Your task to perform on an android device: toggle notification dots Image 0: 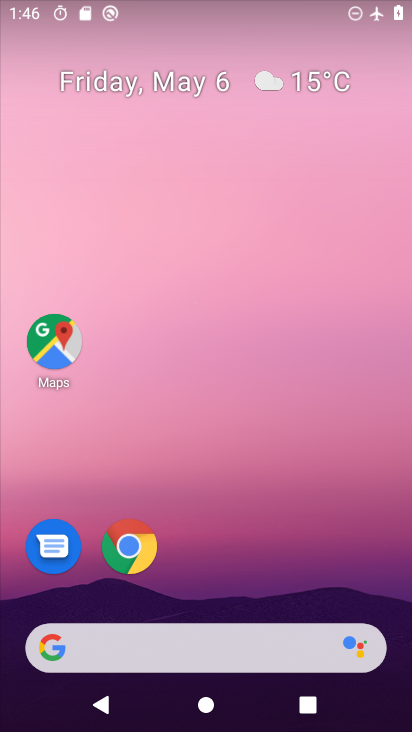
Step 0: drag from (281, 575) to (332, 157)
Your task to perform on an android device: toggle notification dots Image 1: 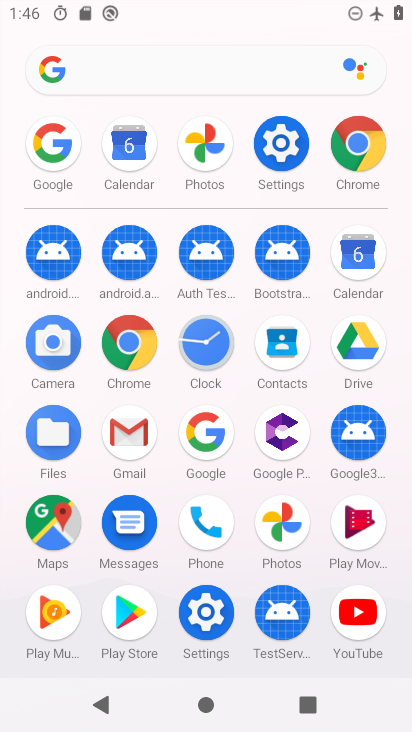
Step 1: click (282, 142)
Your task to perform on an android device: toggle notification dots Image 2: 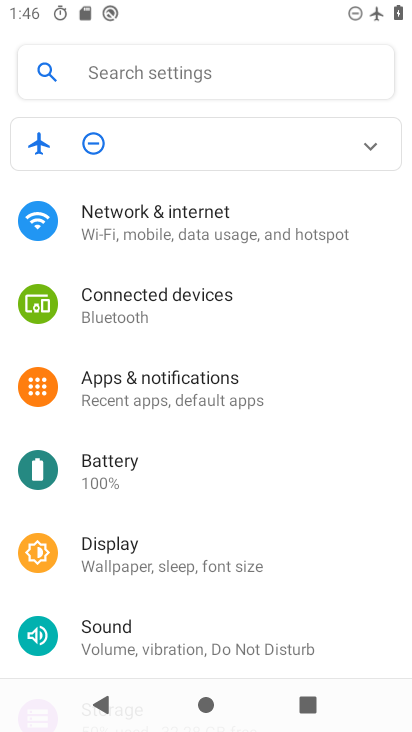
Step 2: click (195, 394)
Your task to perform on an android device: toggle notification dots Image 3: 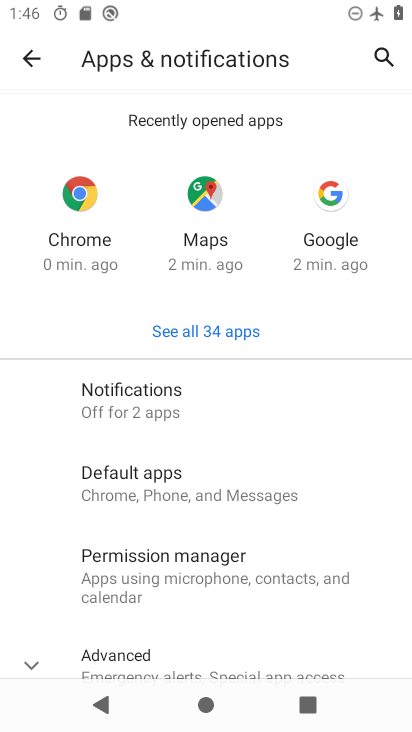
Step 3: click (166, 403)
Your task to perform on an android device: toggle notification dots Image 4: 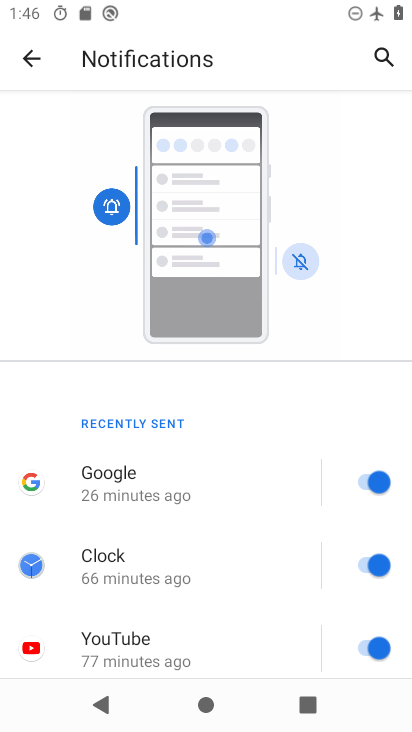
Step 4: drag from (234, 575) to (287, 223)
Your task to perform on an android device: toggle notification dots Image 5: 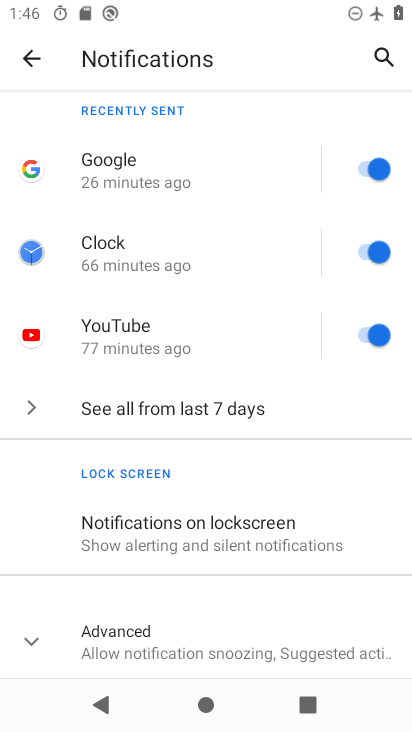
Step 5: click (219, 639)
Your task to perform on an android device: toggle notification dots Image 6: 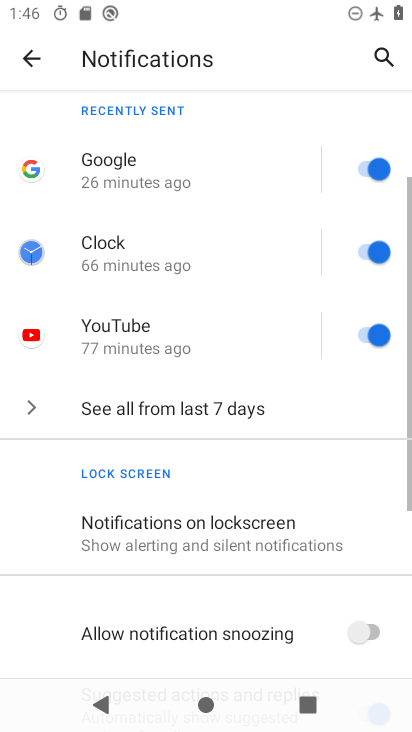
Step 6: drag from (287, 409) to (300, 275)
Your task to perform on an android device: toggle notification dots Image 7: 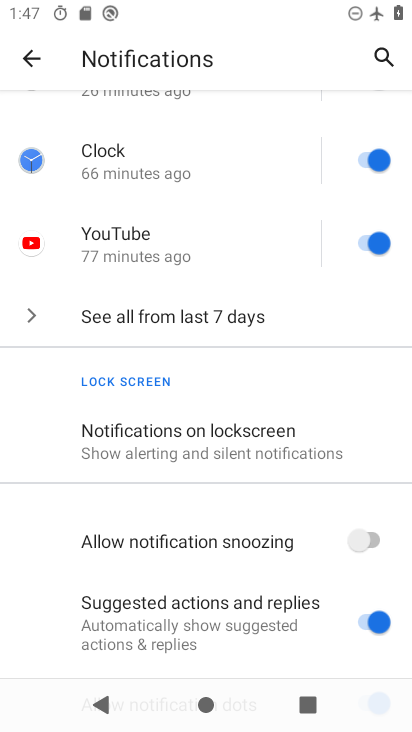
Step 7: drag from (253, 573) to (266, 311)
Your task to perform on an android device: toggle notification dots Image 8: 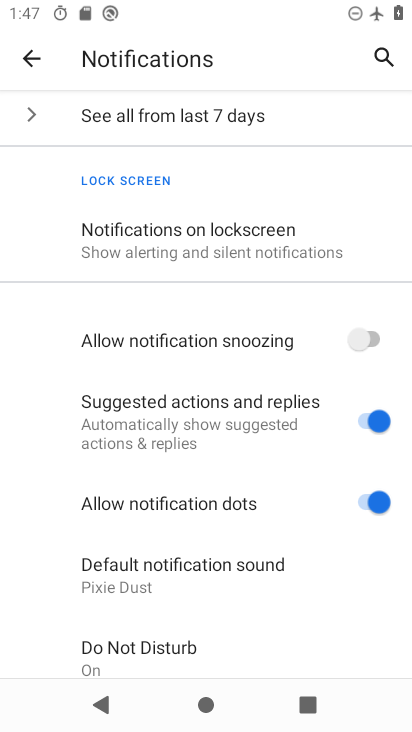
Step 8: click (365, 502)
Your task to perform on an android device: toggle notification dots Image 9: 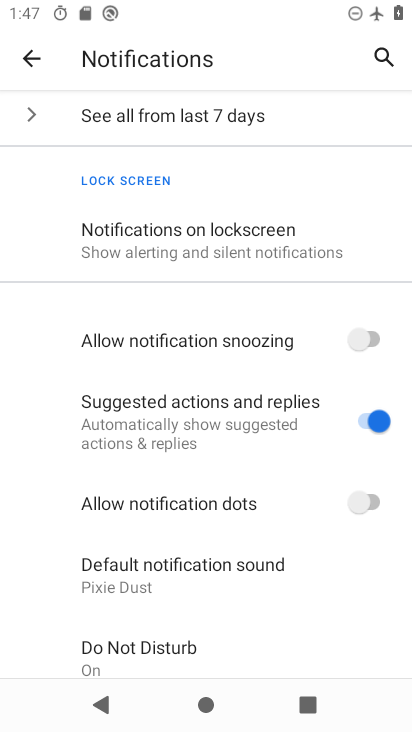
Step 9: task complete